Your task to perform on an android device: check out phone information Image 0: 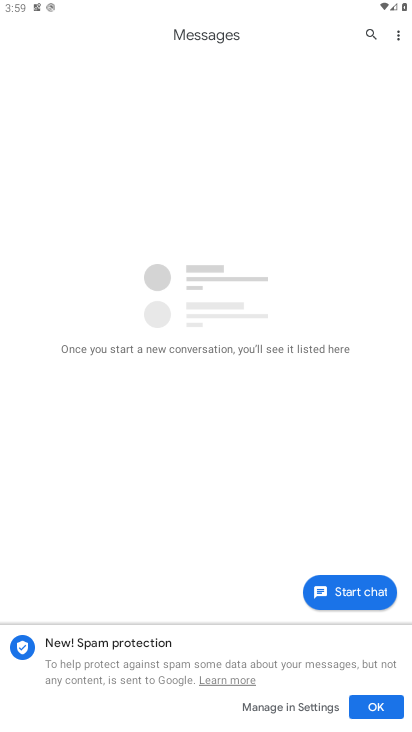
Step 0: press home button
Your task to perform on an android device: check out phone information Image 1: 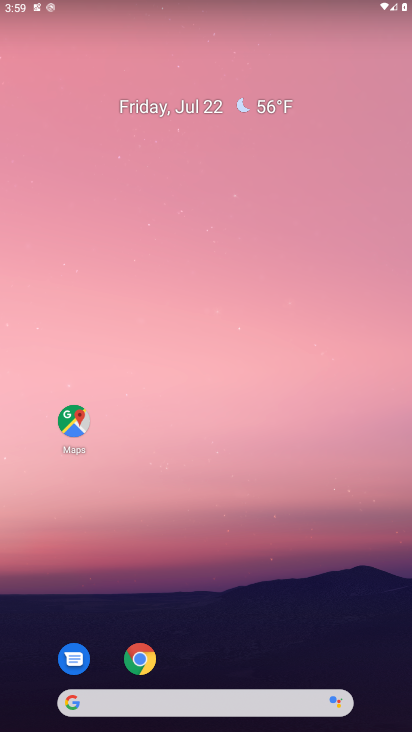
Step 1: drag from (161, 699) to (204, 268)
Your task to perform on an android device: check out phone information Image 2: 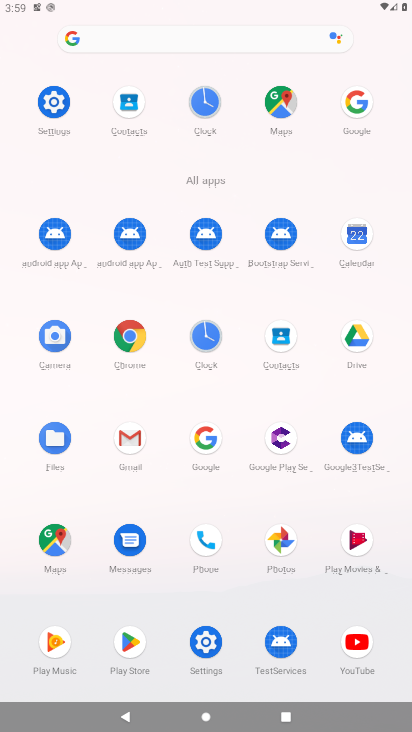
Step 2: click (211, 546)
Your task to perform on an android device: check out phone information Image 3: 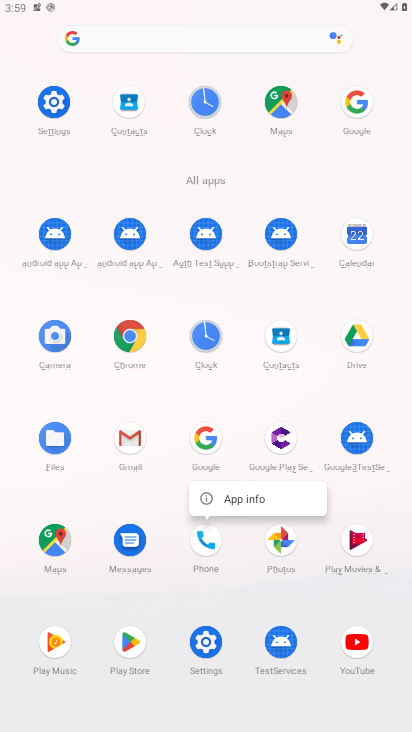
Step 3: click (242, 501)
Your task to perform on an android device: check out phone information Image 4: 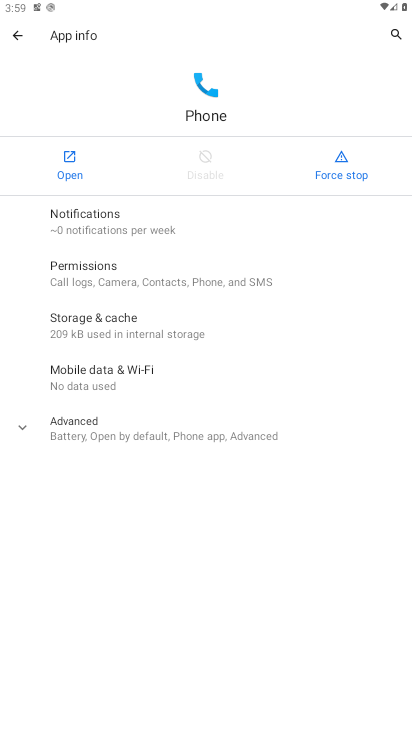
Step 4: click (130, 438)
Your task to perform on an android device: check out phone information Image 5: 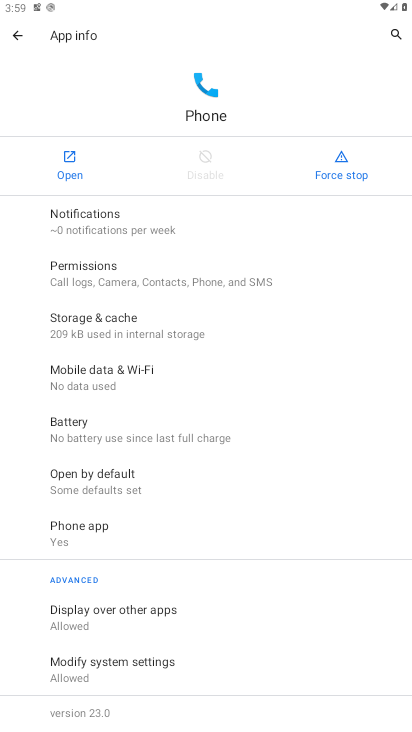
Step 5: task complete